Your task to perform on an android device: open app "Adobe Acrobat Reader: Edit PDF" (install if not already installed) Image 0: 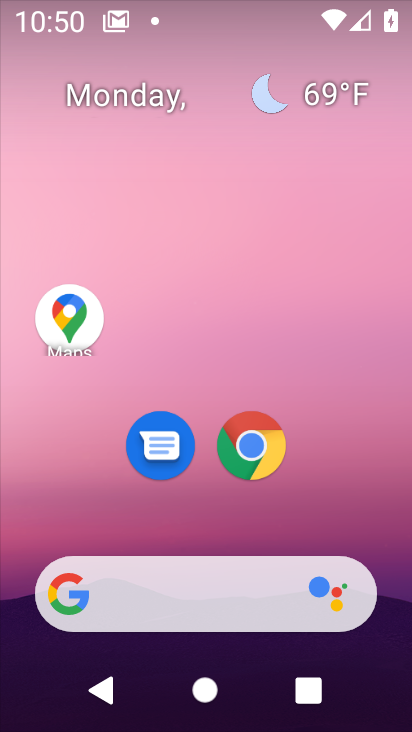
Step 0: drag from (212, 571) to (212, 122)
Your task to perform on an android device: open app "Adobe Acrobat Reader: Edit PDF" (install if not already installed) Image 1: 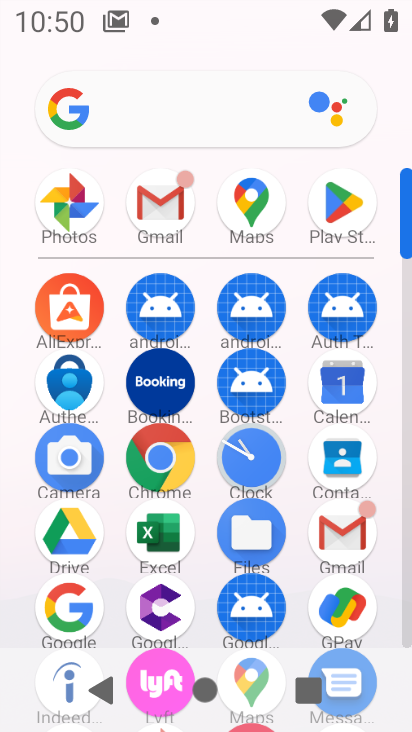
Step 1: click (365, 200)
Your task to perform on an android device: open app "Adobe Acrobat Reader: Edit PDF" (install if not already installed) Image 2: 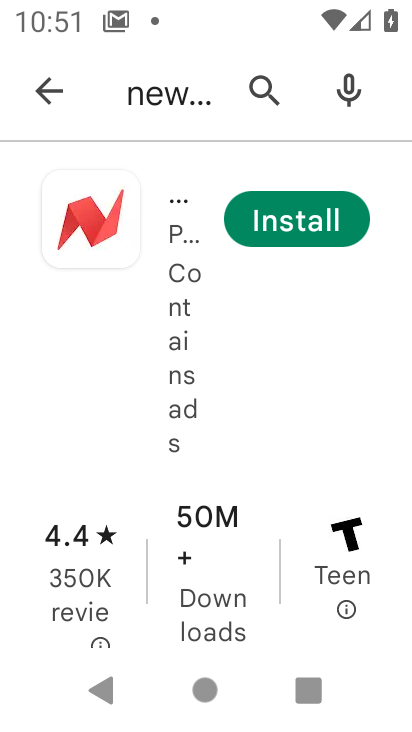
Step 2: click (52, 95)
Your task to perform on an android device: open app "Adobe Acrobat Reader: Edit PDF" (install if not already installed) Image 3: 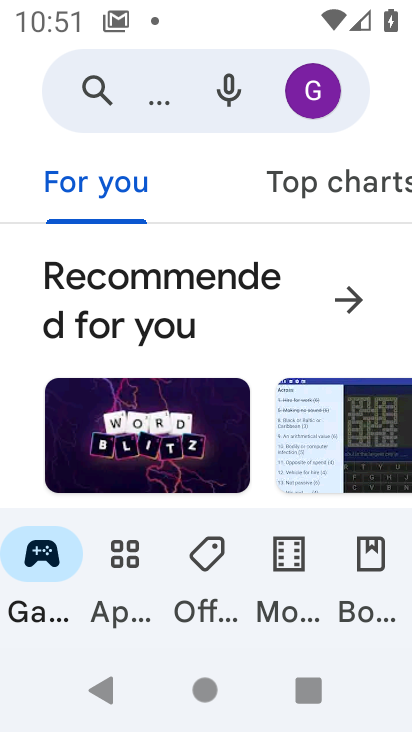
Step 3: click (101, 85)
Your task to perform on an android device: open app "Adobe Acrobat Reader: Edit PDF" (install if not already installed) Image 4: 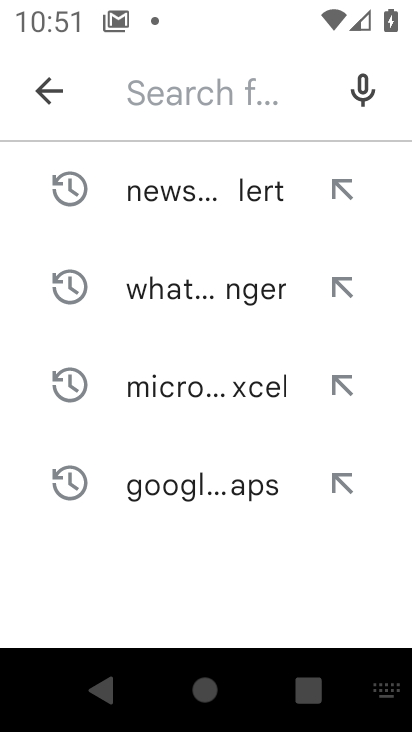
Step 4: type "Adobe Acrobat Reader: Edit PDF"
Your task to perform on an android device: open app "Adobe Acrobat Reader: Edit PDF" (install if not already installed) Image 5: 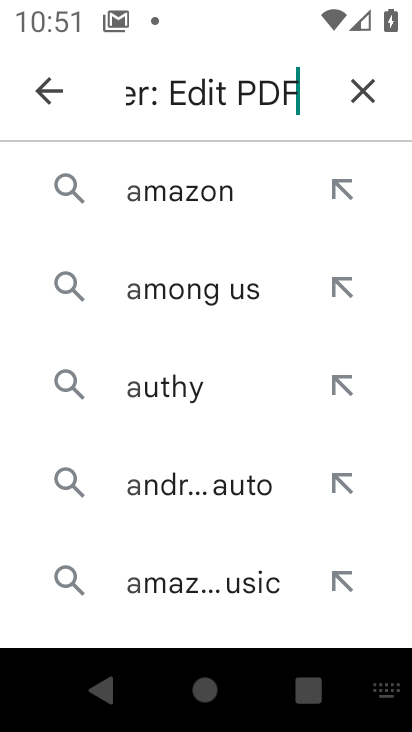
Step 5: type ""
Your task to perform on an android device: open app "Adobe Acrobat Reader: Edit PDF" (install if not already installed) Image 6: 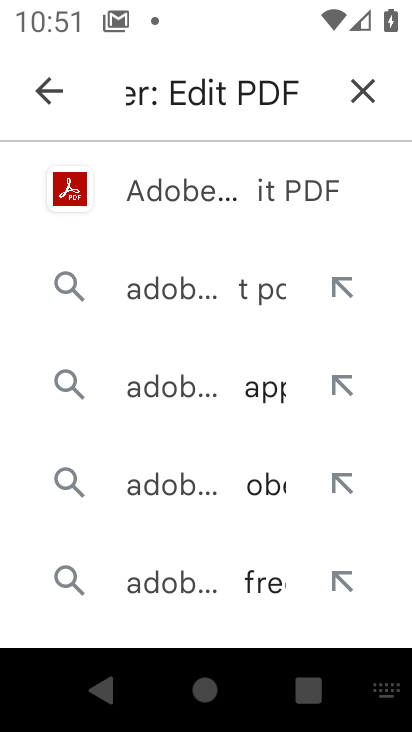
Step 6: click (92, 173)
Your task to perform on an android device: open app "Adobe Acrobat Reader: Edit PDF" (install if not already installed) Image 7: 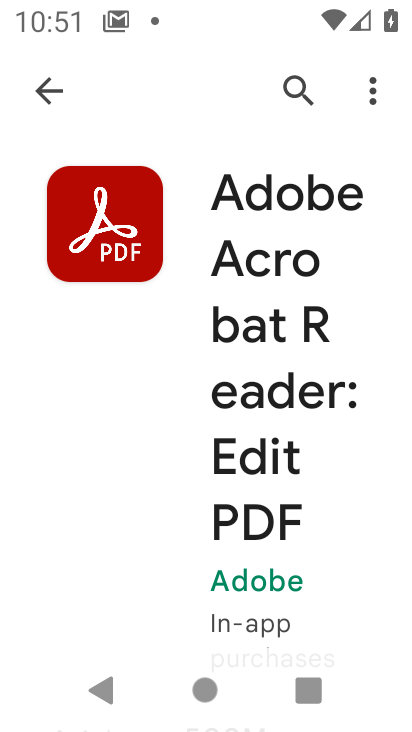
Step 7: drag from (176, 455) to (191, 1)
Your task to perform on an android device: open app "Adobe Acrobat Reader: Edit PDF" (install if not already installed) Image 8: 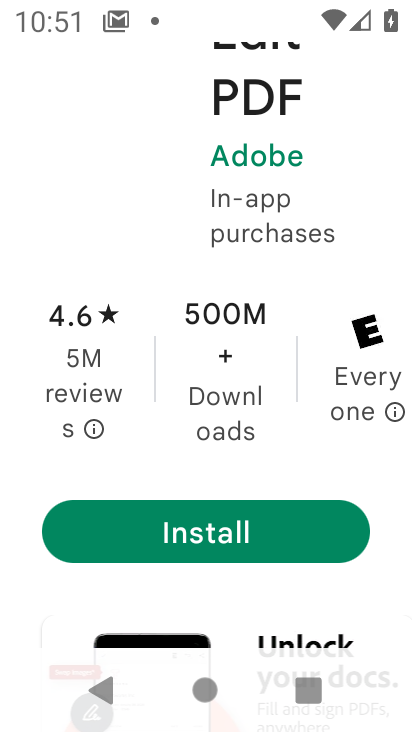
Step 8: click (140, 534)
Your task to perform on an android device: open app "Adobe Acrobat Reader: Edit PDF" (install if not already installed) Image 9: 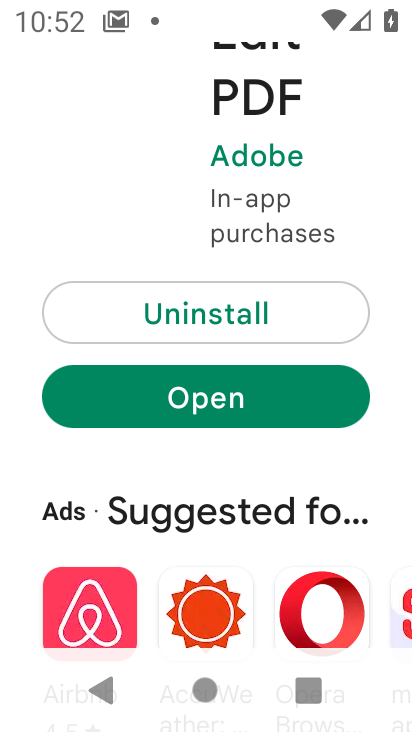
Step 9: click (313, 378)
Your task to perform on an android device: open app "Adobe Acrobat Reader: Edit PDF" (install if not already installed) Image 10: 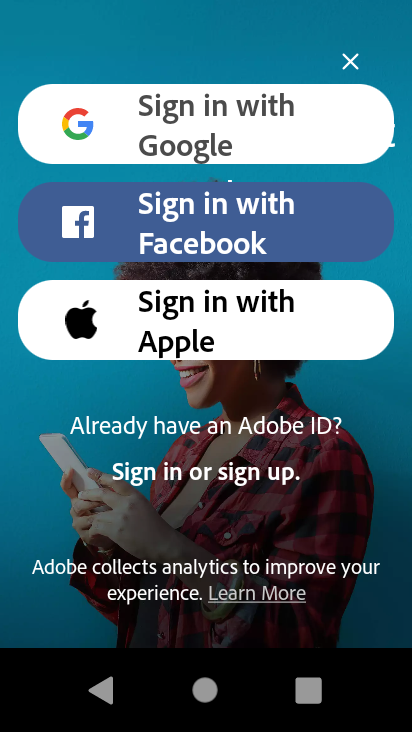
Step 10: task complete